Your task to perform on an android device: add a contact in the contacts app Image 0: 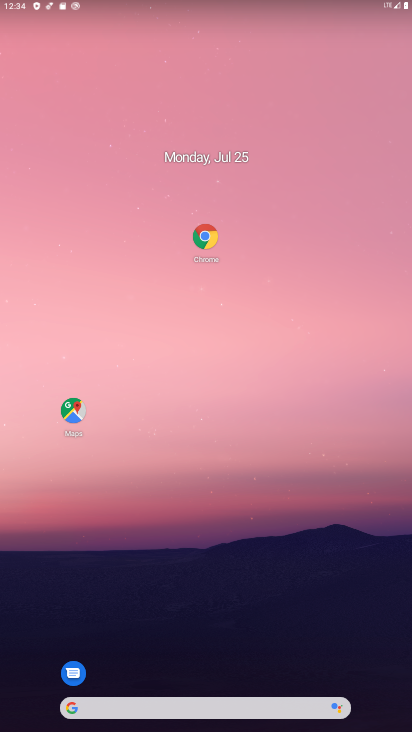
Step 0: drag from (310, 638) to (377, 4)
Your task to perform on an android device: add a contact in the contacts app Image 1: 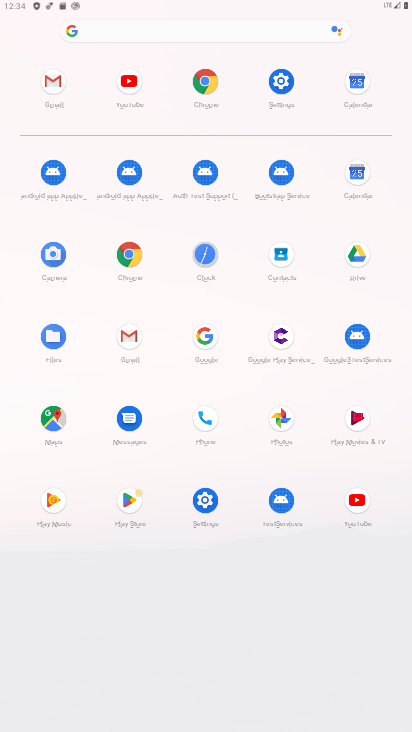
Step 1: click (286, 255)
Your task to perform on an android device: add a contact in the contacts app Image 2: 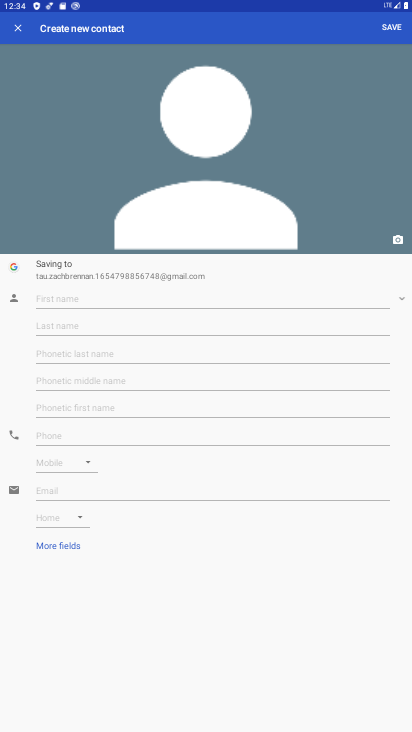
Step 2: click (147, 299)
Your task to perform on an android device: add a contact in the contacts app Image 3: 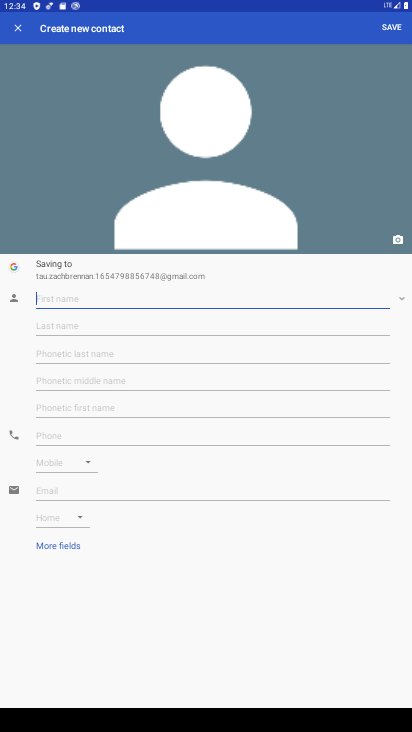
Step 3: type "gourav"
Your task to perform on an android device: add a contact in the contacts app Image 4: 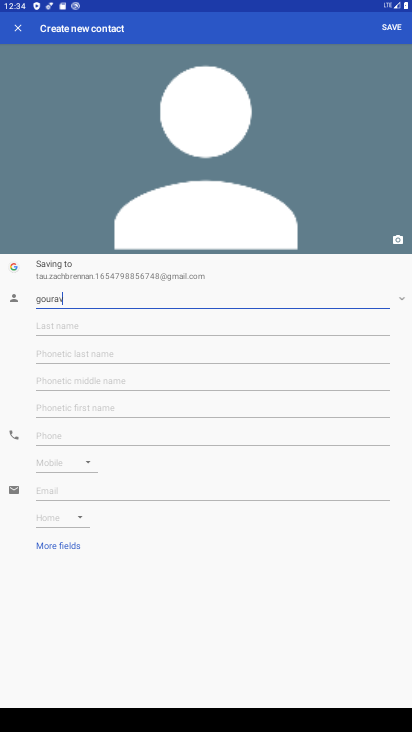
Step 4: click (87, 438)
Your task to perform on an android device: add a contact in the contacts app Image 5: 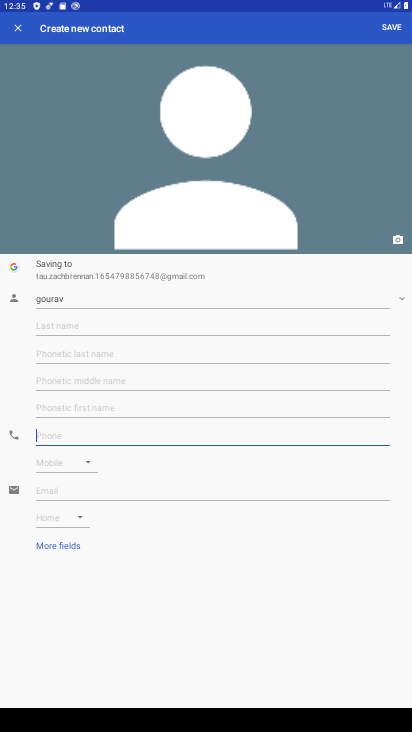
Step 5: type "9765456788"
Your task to perform on an android device: add a contact in the contacts app Image 6: 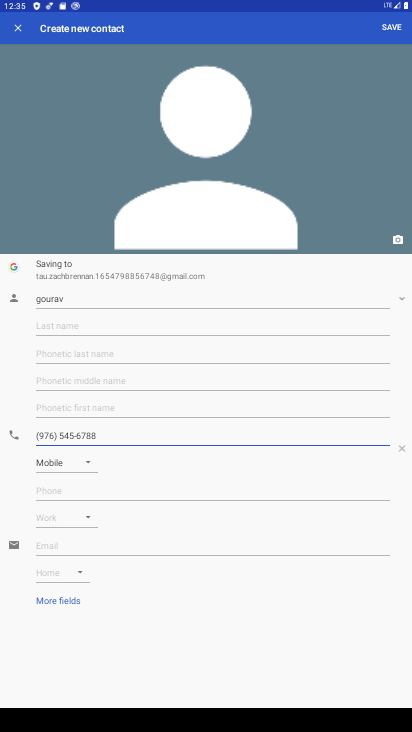
Step 6: click (397, 26)
Your task to perform on an android device: add a contact in the contacts app Image 7: 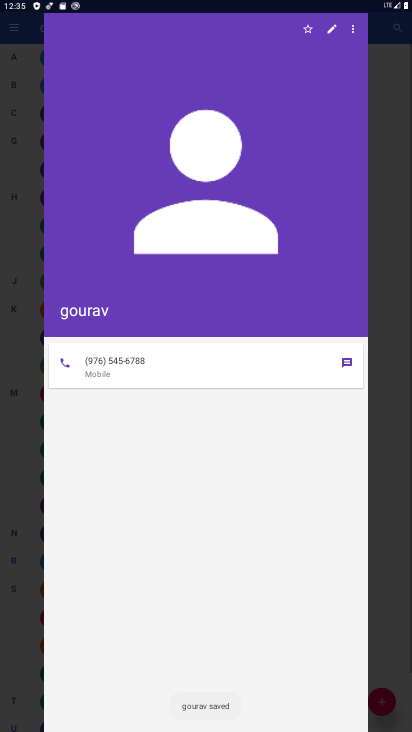
Step 7: task complete